Your task to perform on an android device: Add "logitech g pro" to the cart on target.com Image 0: 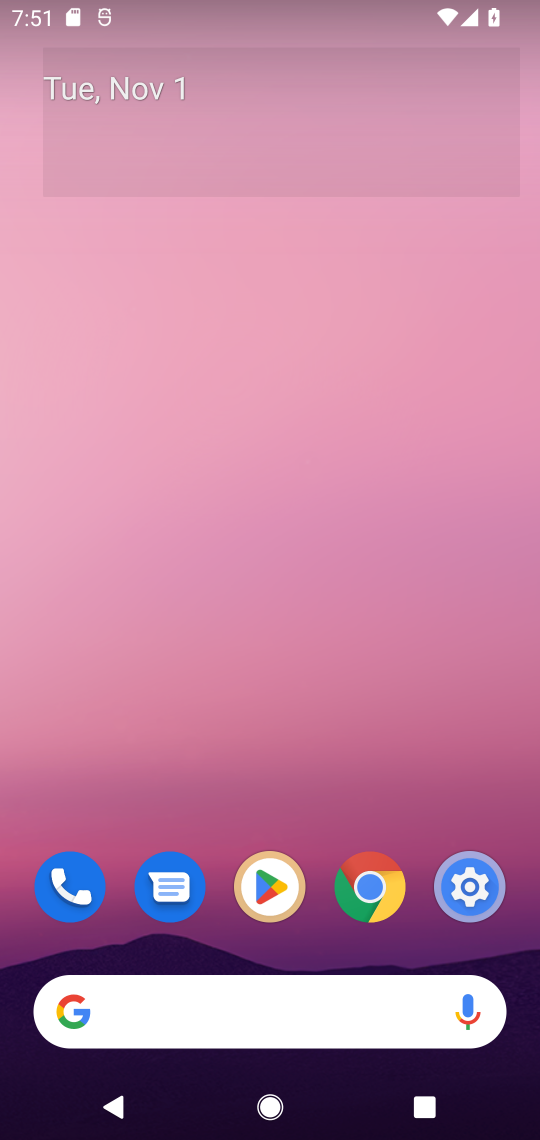
Step 0: click (171, 980)
Your task to perform on an android device: Add "logitech g pro" to the cart on target.com Image 1: 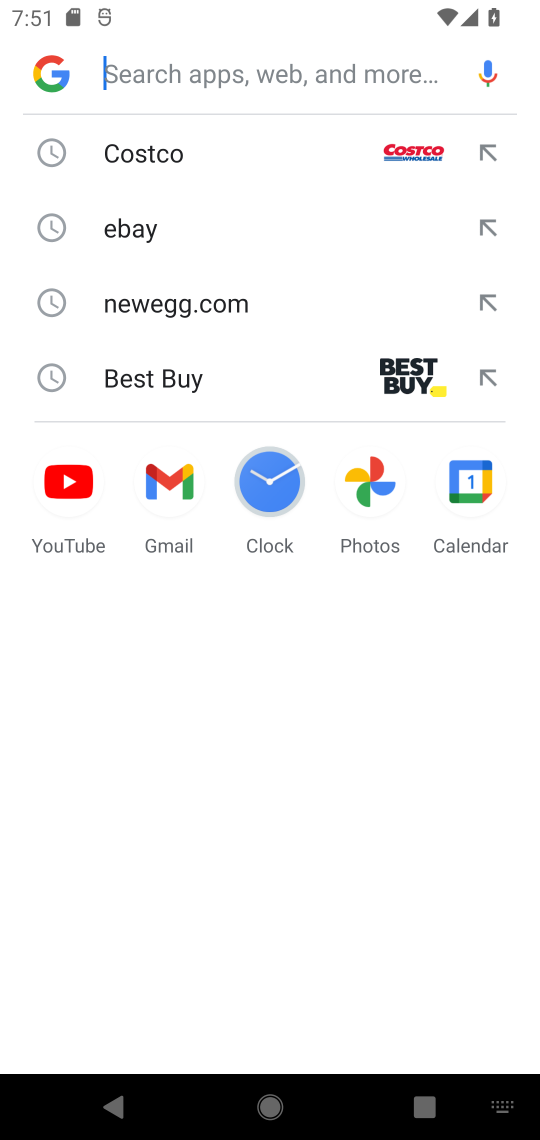
Step 1: type "target.com"
Your task to perform on an android device: Add "logitech g pro" to the cart on target.com Image 2: 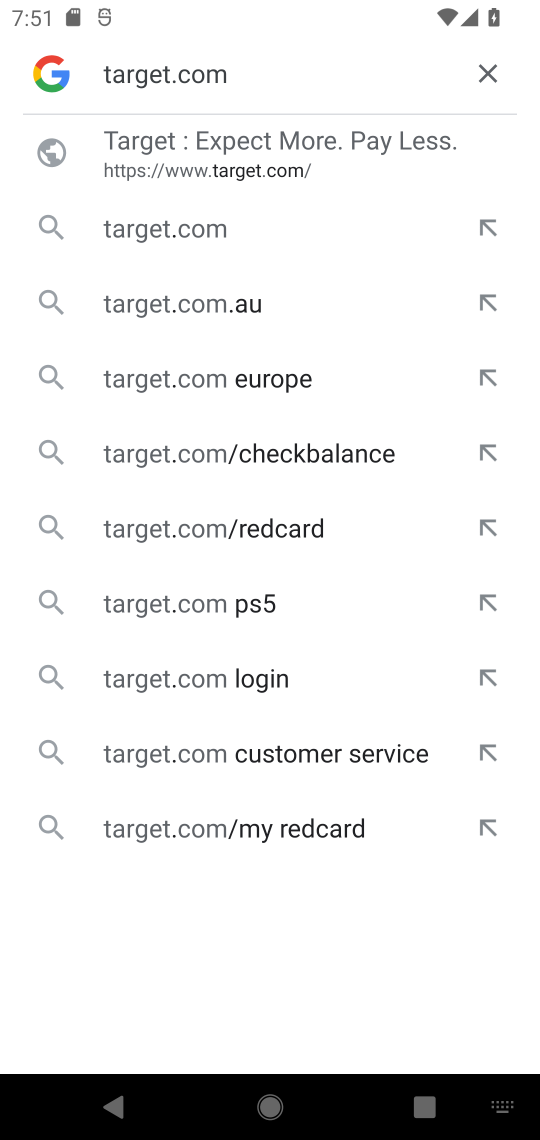
Step 2: click (173, 150)
Your task to perform on an android device: Add "logitech g pro" to the cart on target.com Image 3: 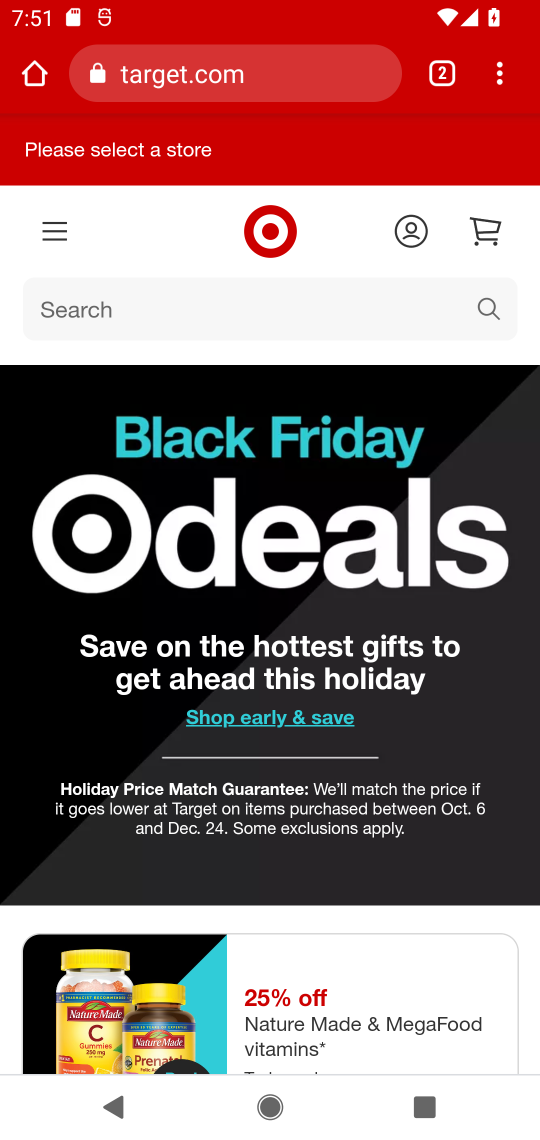
Step 3: click (420, 301)
Your task to perform on an android device: Add "logitech g pro" to the cart on target.com Image 4: 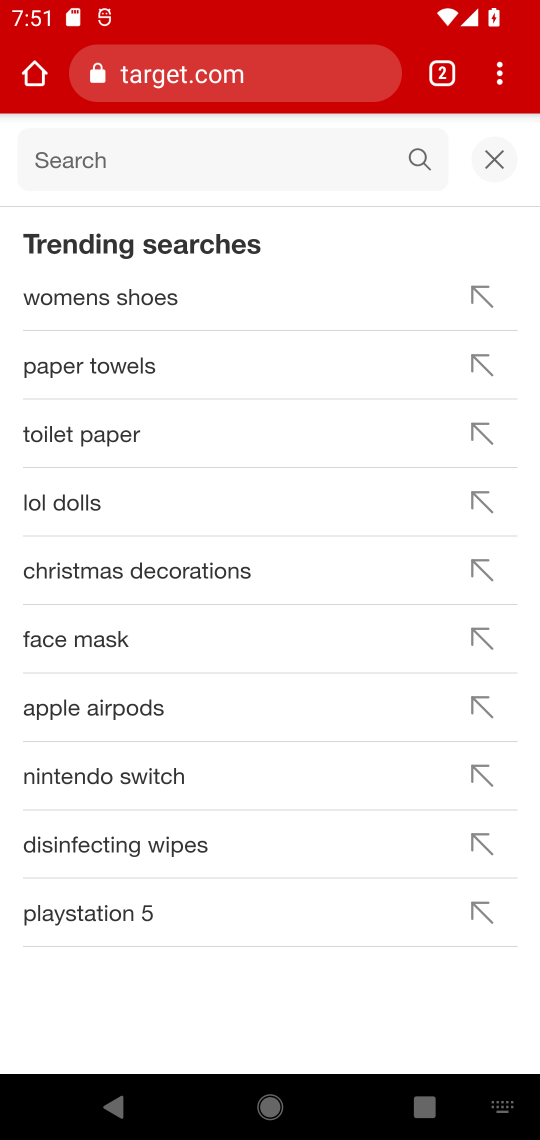
Step 4: type "logitech g pro"
Your task to perform on an android device: Add "logitech g pro" to the cart on target.com Image 5: 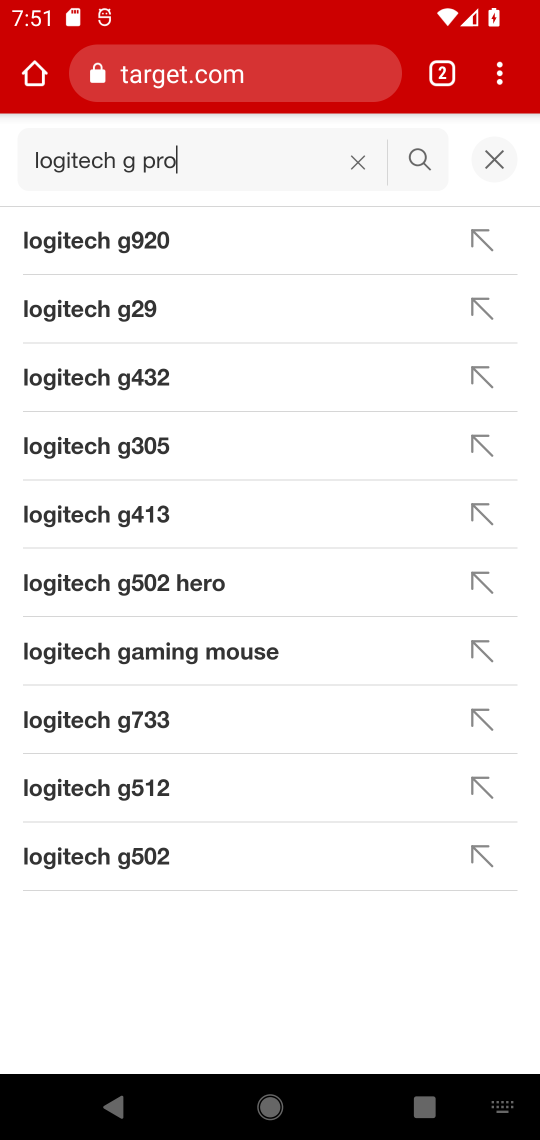
Step 5: click (125, 237)
Your task to perform on an android device: Add "logitech g pro" to the cart on target.com Image 6: 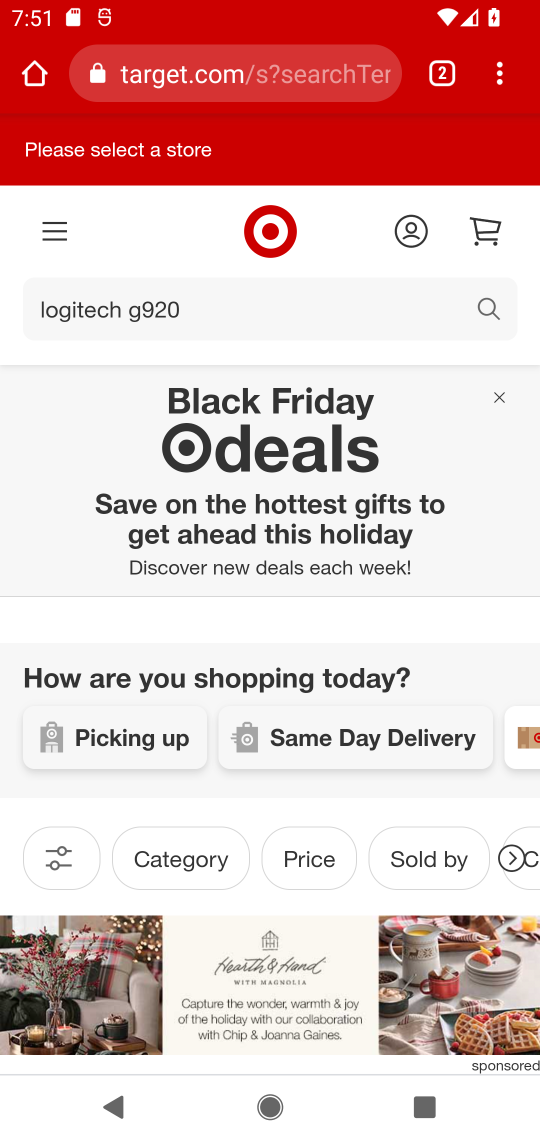
Step 6: drag from (203, 883) to (288, 624)
Your task to perform on an android device: Add "logitech g pro" to the cart on target.com Image 7: 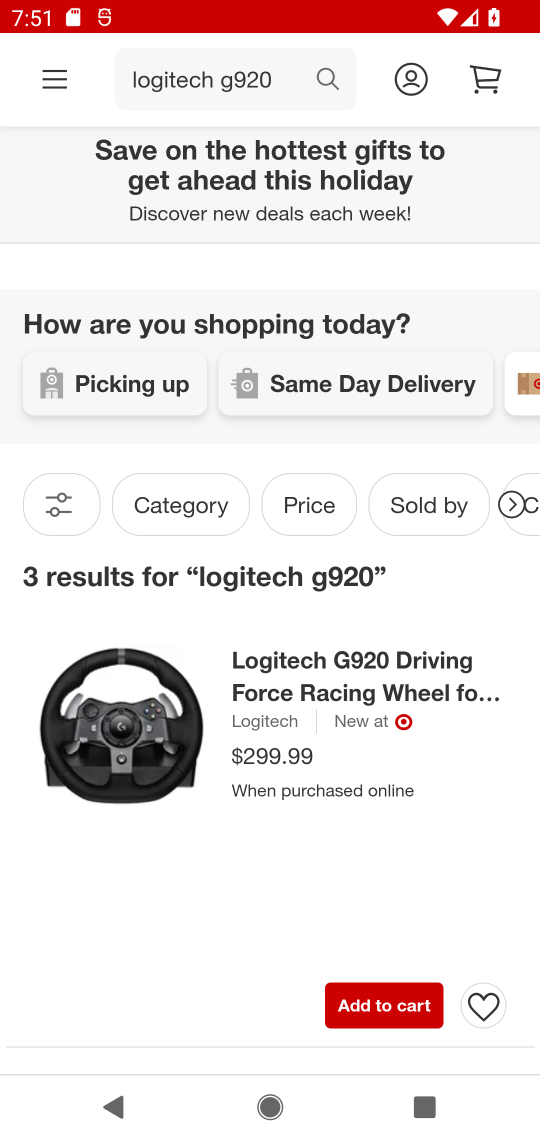
Step 7: click (297, 679)
Your task to perform on an android device: Add "logitech g pro" to the cart on target.com Image 8: 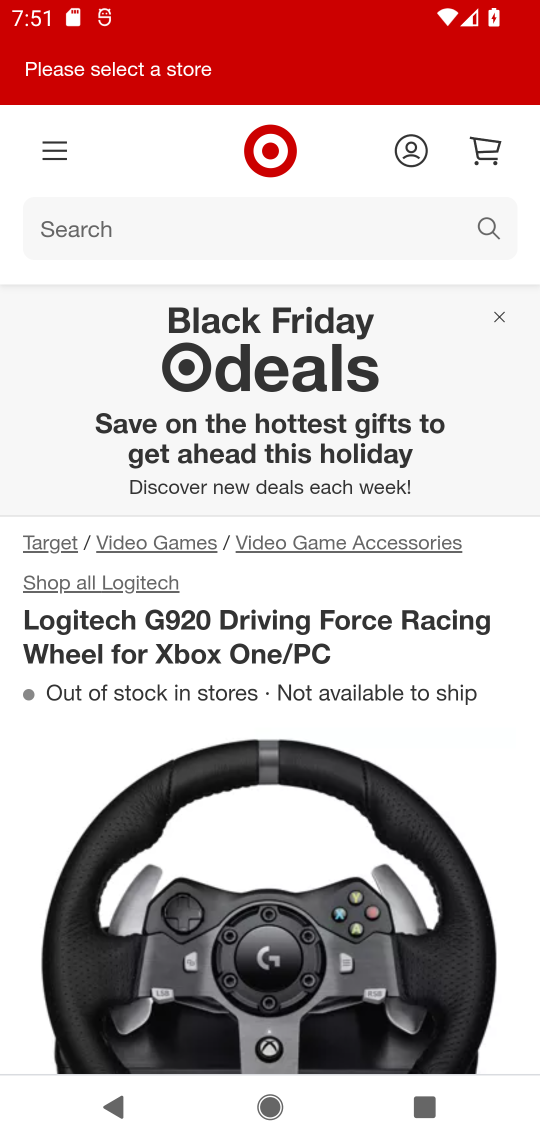
Step 8: drag from (294, 781) to (306, 517)
Your task to perform on an android device: Add "logitech g pro" to the cart on target.com Image 9: 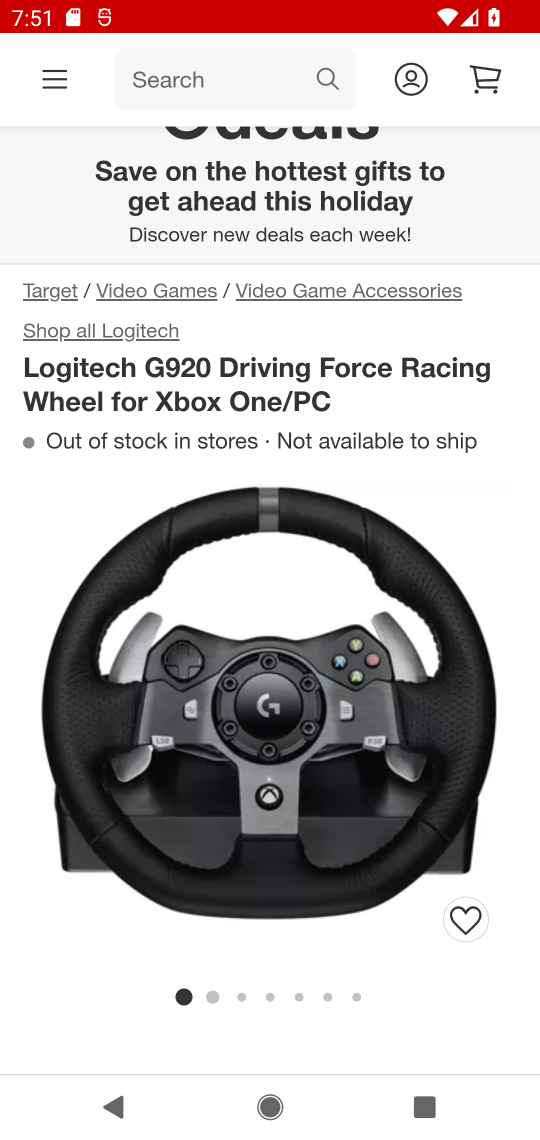
Step 9: drag from (306, 972) to (307, 614)
Your task to perform on an android device: Add "logitech g pro" to the cart on target.com Image 10: 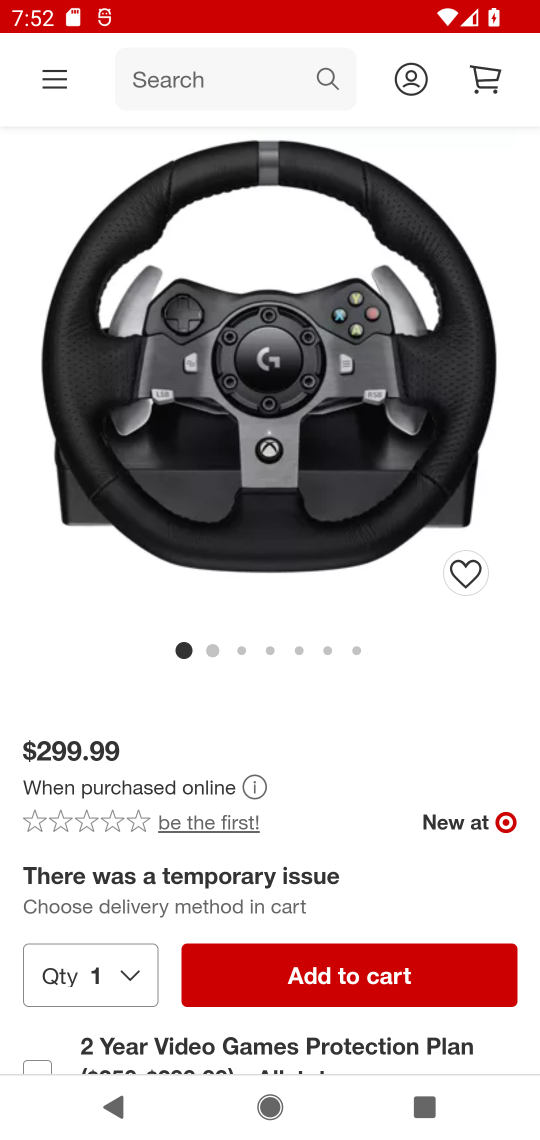
Step 10: click (300, 966)
Your task to perform on an android device: Add "logitech g pro" to the cart on target.com Image 11: 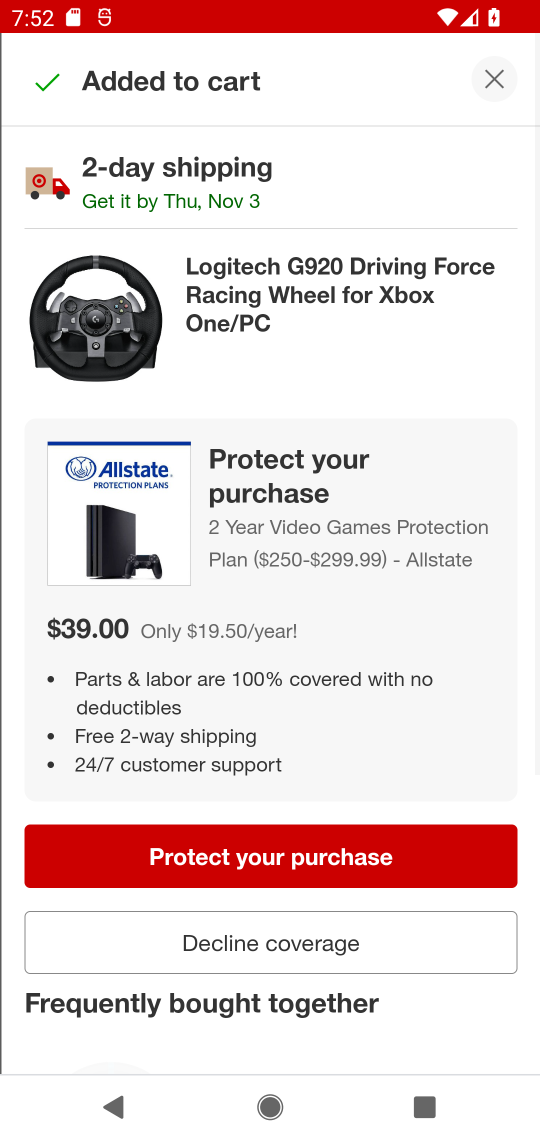
Step 11: task complete